Your task to perform on an android device: stop showing notifications on the lock screen Image 0: 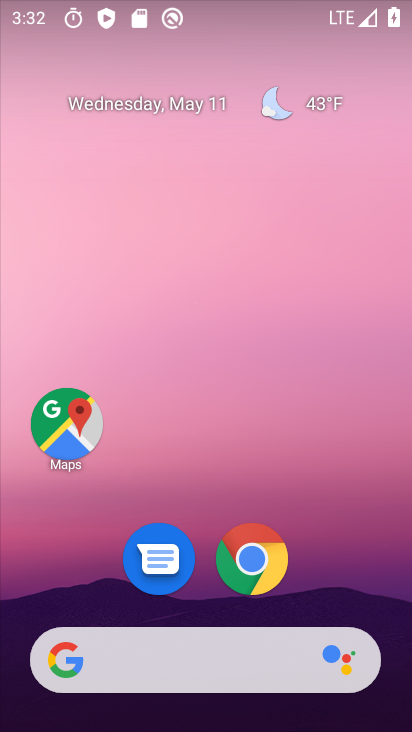
Step 0: drag from (364, 558) to (286, 84)
Your task to perform on an android device: stop showing notifications on the lock screen Image 1: 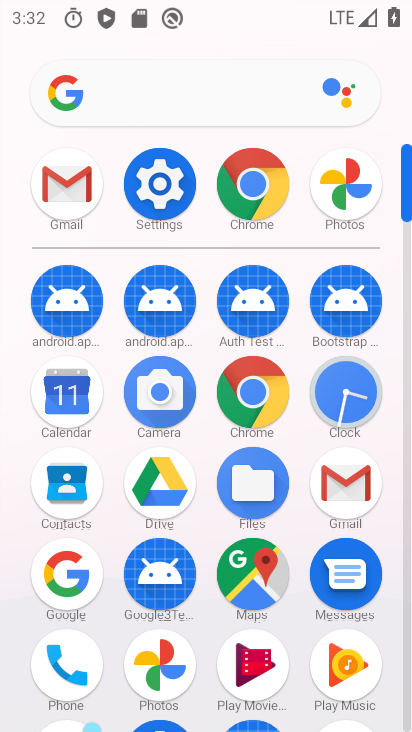
Step 1: click (152, 193)
Your task to perform on an android device: stop showing notifications on the lock screen Image 2: 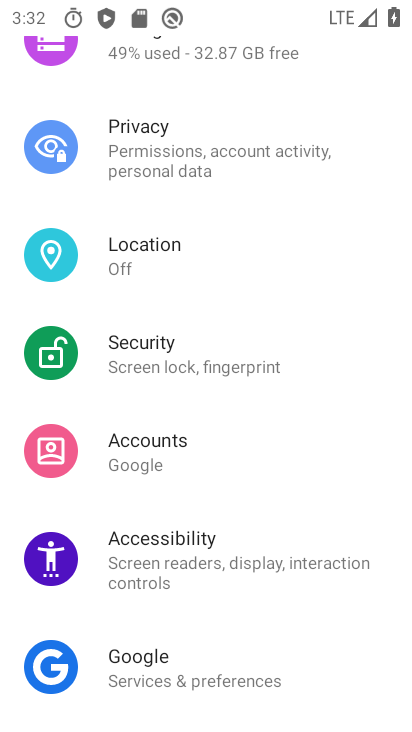
Step 2: drag from (233, 166) to (229, 630)
Your task to perform on an android device: stop showing notifications on the lock screen Image 3: 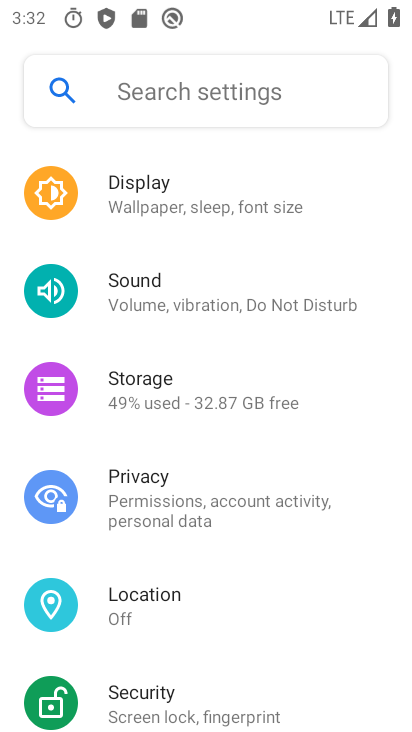
Step 3: drag from (215, 252) to (208, 586)
Your task to perform on an android device: stop showing notifications on the lock screen Image 4: 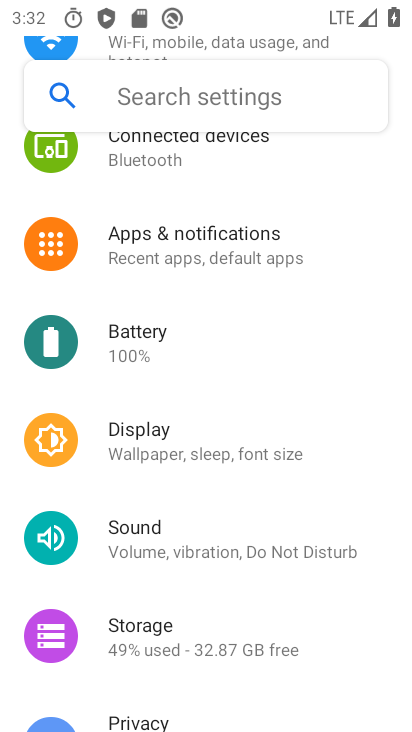
Step 4: click (214, 253)
Your task to perform on an android device: stop showing notifications on the lock screen Image 5: 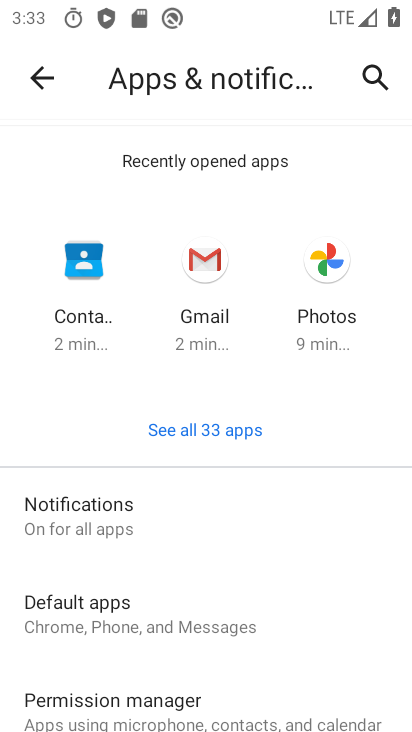
Step 5: click (222, 512)
Your task to perform on an android device: stop showing notifications on the lock screen Image 6: 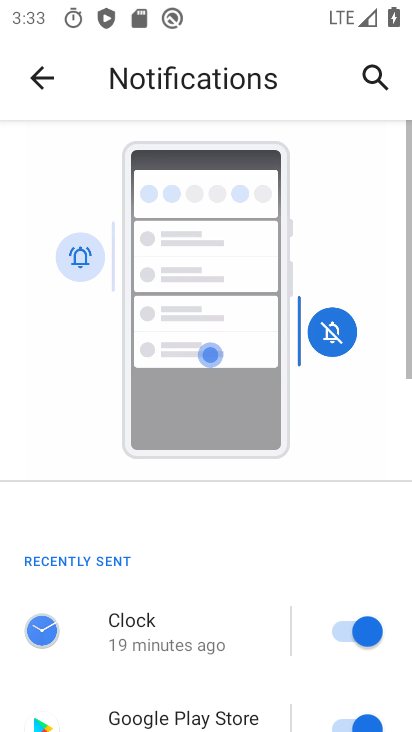
Step 6: drag from (248, 602) to (248, 209)
Your task to perform on an android device: stop showing notifications on the lock screen Image 7: 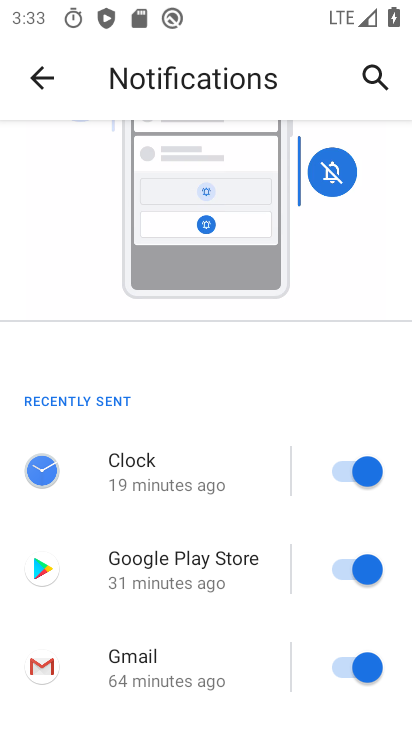
Step 7: drag from (206, 613) to (211, 199)
Your task to perform on an android device: stop showing notifications on the lock screen Image 8: 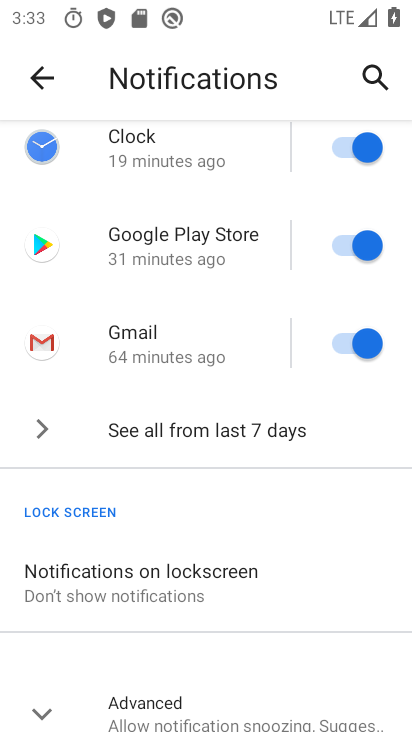
Step 8: click (229, 586)
Your task to perform on an android device: stop showing notifications on the lock screen Image 9: 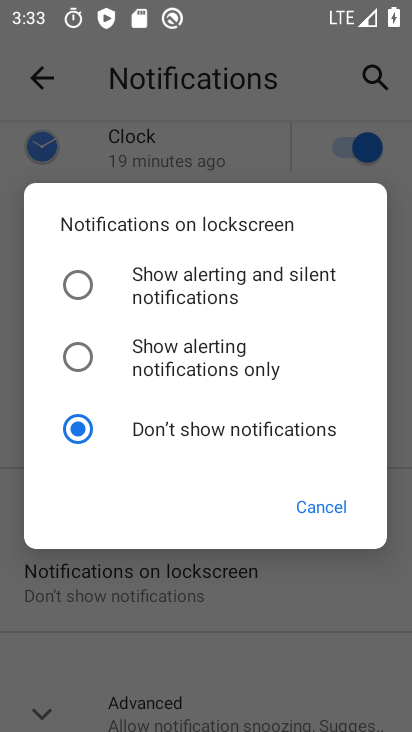
Step 9: task complete